Your task to perform on an android device: Go to Amazon Image 0: 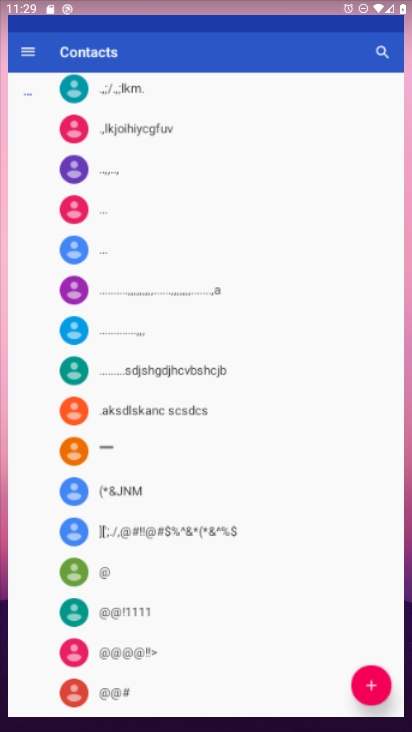
Step 0: press home button
Your task to perform on an android device: Go to Amazon Image 1: 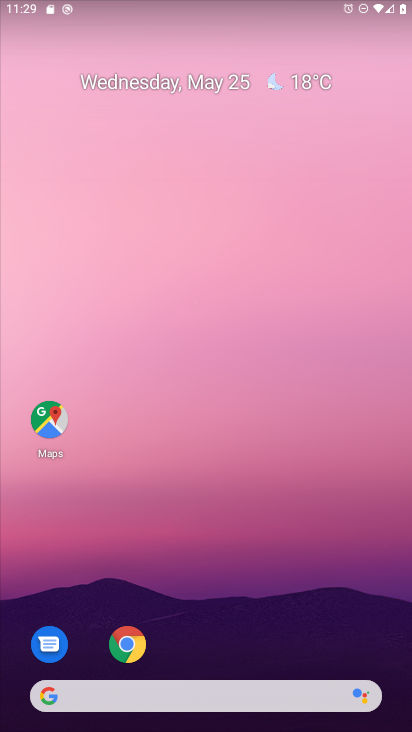
Step 1: click (124, 641)
Your task to perform on an android device: Go to Amazon Image 2: 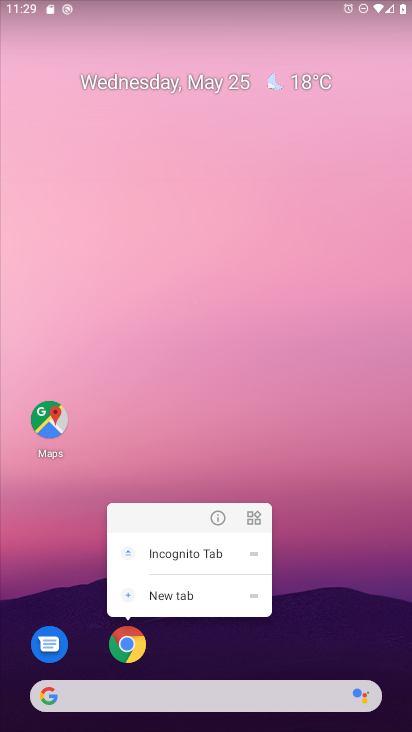
Step 2: click (126, 640)
Your task to perform on an android device: Go to Amazon Image 3: 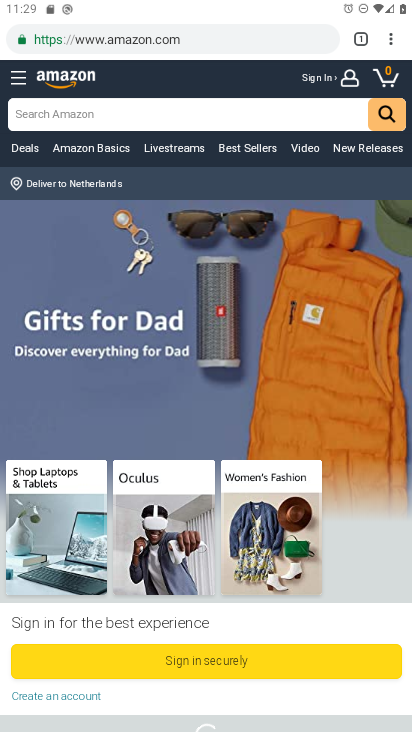
Step 3: click (359, 33)
Your task to perform on an android device: Go to Amazon Image 4: 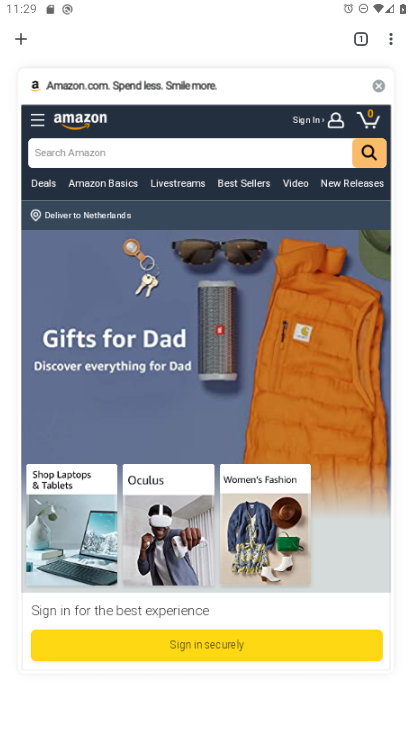
Step 4: click (378, 82)
Your task to perform on an android device: Go to Amazon Image 5: 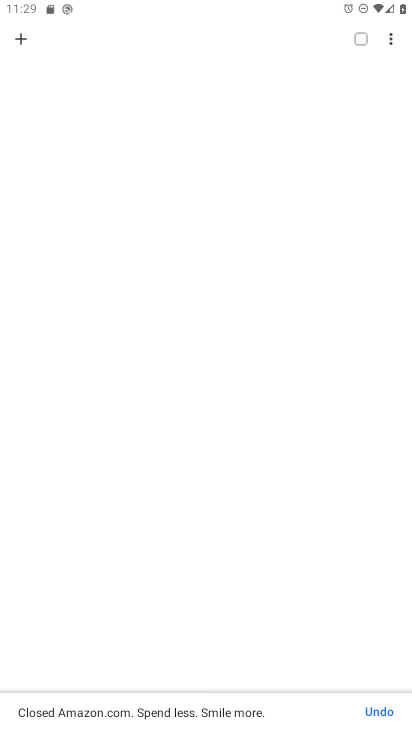
Step 5: click (20, 38)
Your task to perform on an android device: Go to Amazon Image 6: 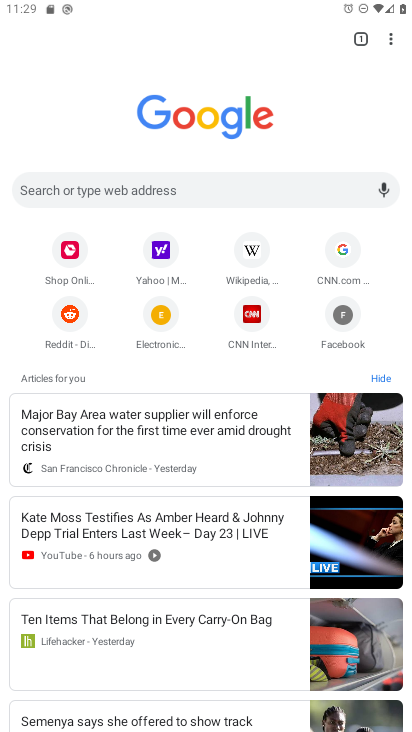
Step 6: click (143, 186)
Your task to perform on an android device: Go to Amazon Image 7: 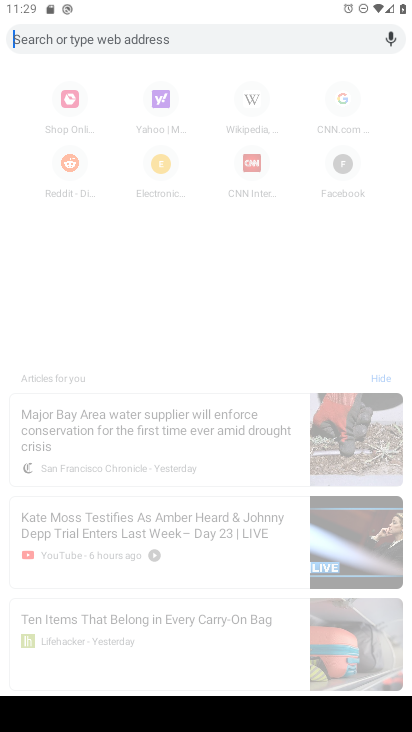
Step 7: type "amazon"
Your task to perform on an android device: Go to Amazon Image 8: 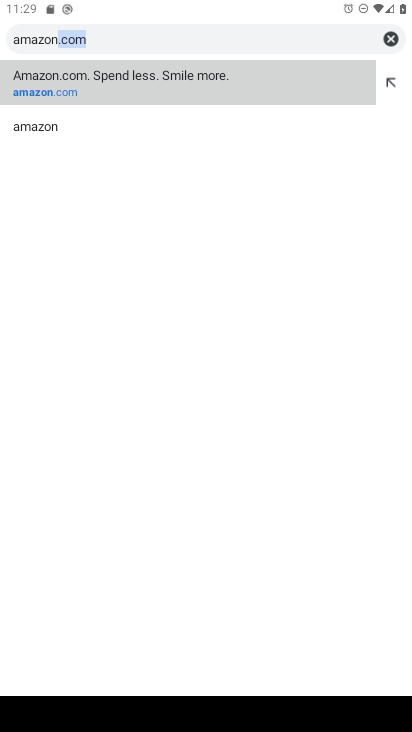
Step 8: type ""
Your task to perform on an android device: Go to Amazon Image 9: 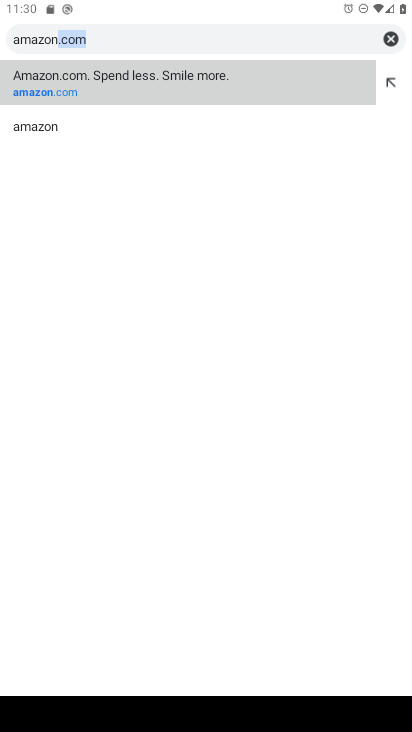
Step 9: click (78, 78)
Your task to perform on an android device: Go to Amazon Image 10: 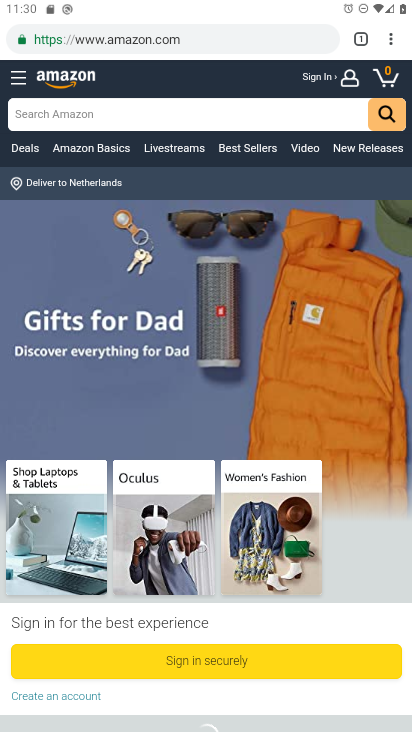
Step 10: task complete